Your task to perform on an android device: Go to Yahoo.com Image 0: 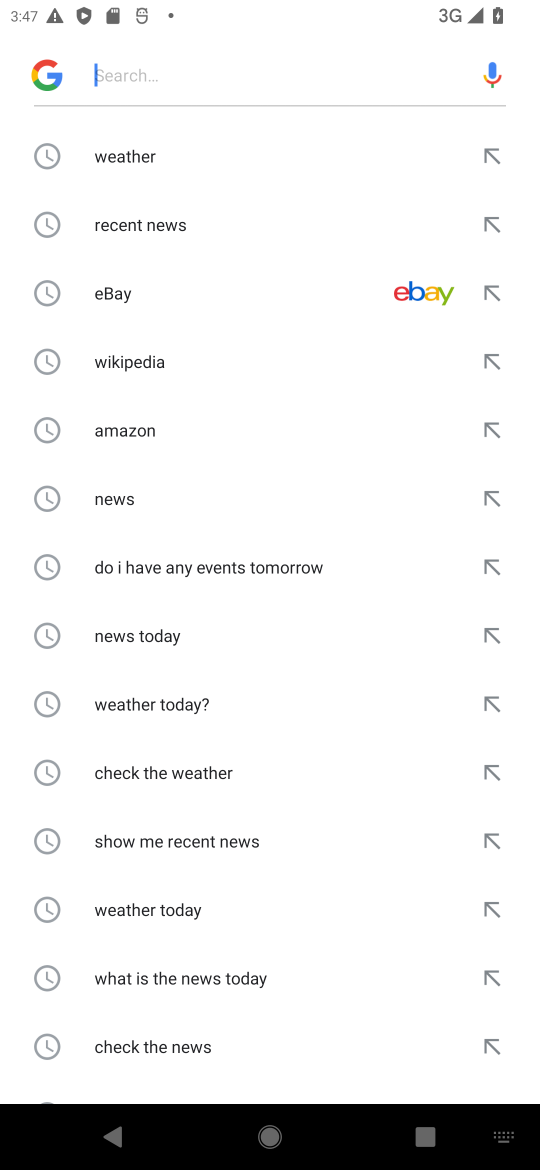
Step 0: type "yahhoo.com"
Your task to perform on an android device: Go to Yahoo.com Image 1: 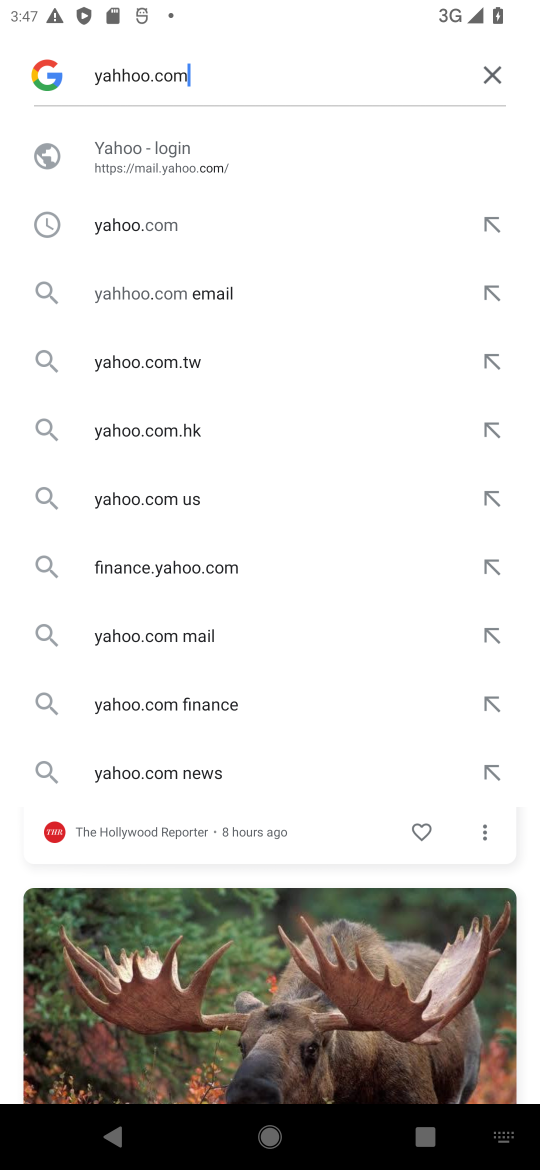
Step 1: click (274, 162)
Your task to perform on an android device: Go to Yahoo.com Image 2: 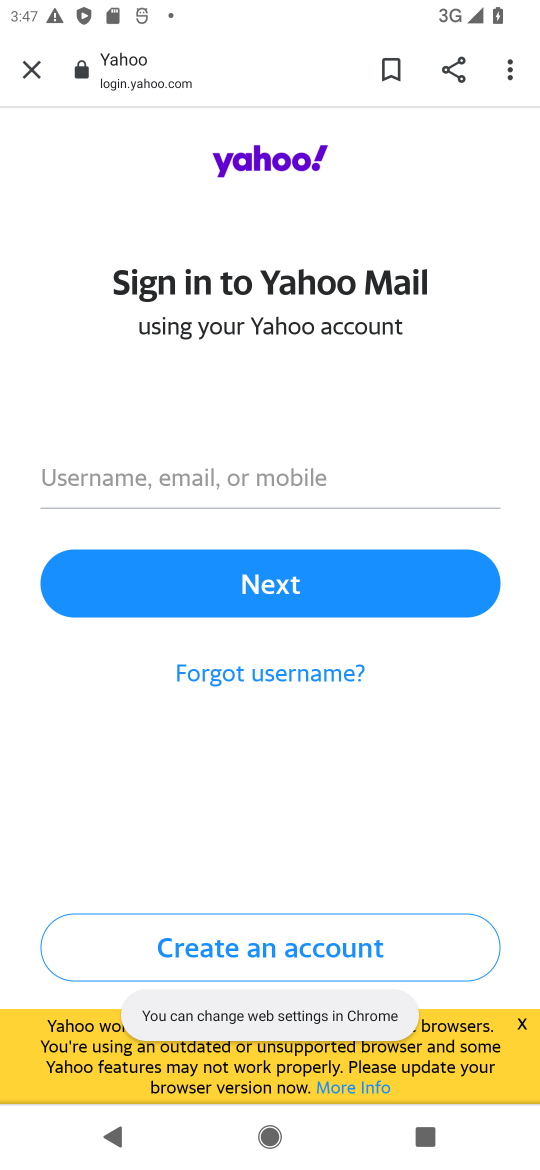
Step 2: task complete